Your task to perform on an android device: Open location settings Image 0: 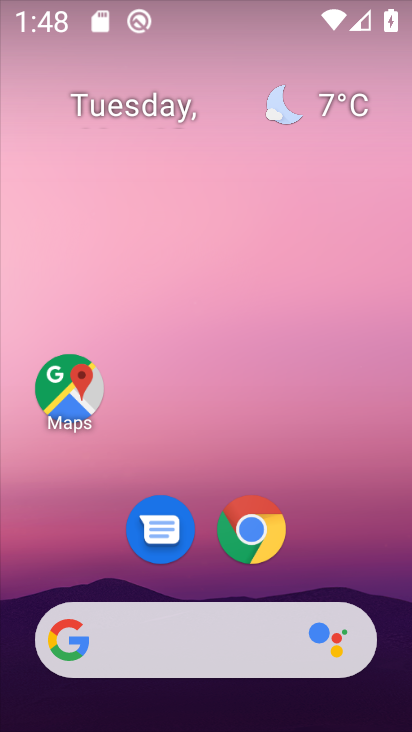
Step 0: drag from (321, 536) to (236, 22)
Your task to perform on an android device: Open location settings Image 1: 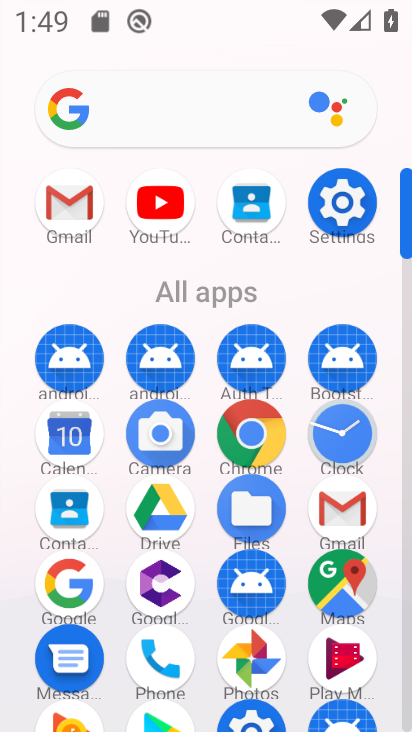
Step 1: click (342, 202)
Your task to perform on an android device: Open location settings Image 2: 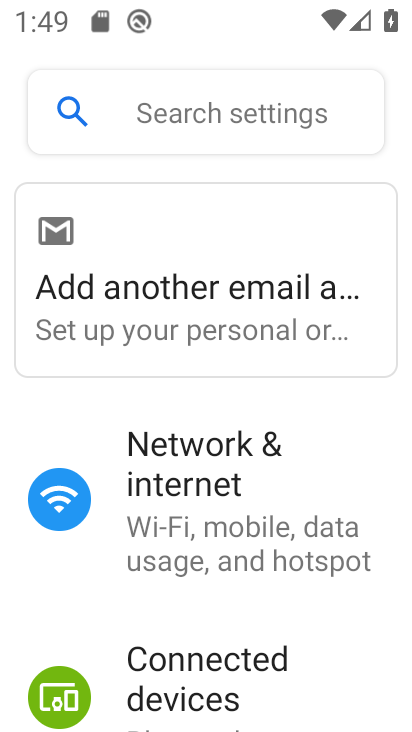
Step 2: drag from (207, 595) to (268, 396)
Your task to perform on an android device: Open location settings Image 3: 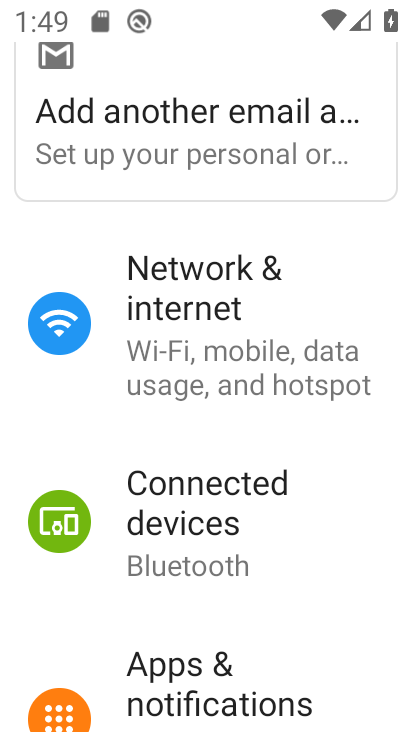
Step 3: drag from (200, 595) to (242, 446)
Your task to perform on an android device: Open location settings Image 4: 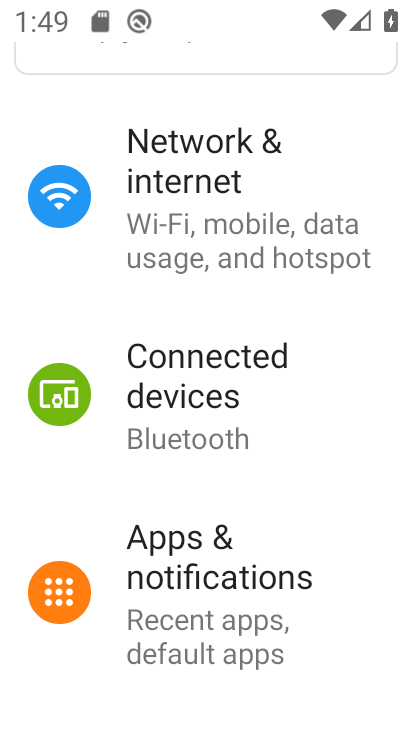
Step 4: drag from (252, 501) to (289, 363)
Your task to perform on an android device: Open location settings Image 5: 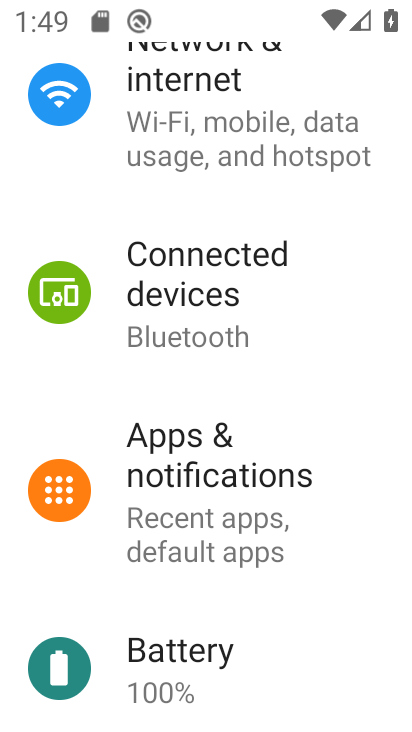
Step 5: drag from (230, 556) to (268, 438)
Your task to perform on an android device: Open location settings Image 6: 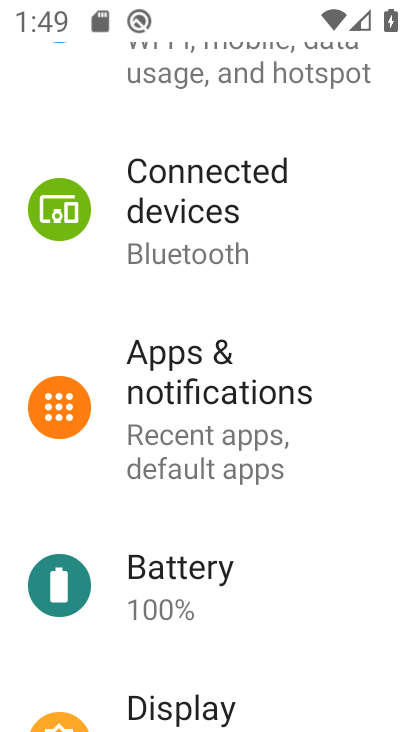
Step 6: drag from (247, 612) to (335, 383)
Your task to perform on an android device: Open location settings Image 7: 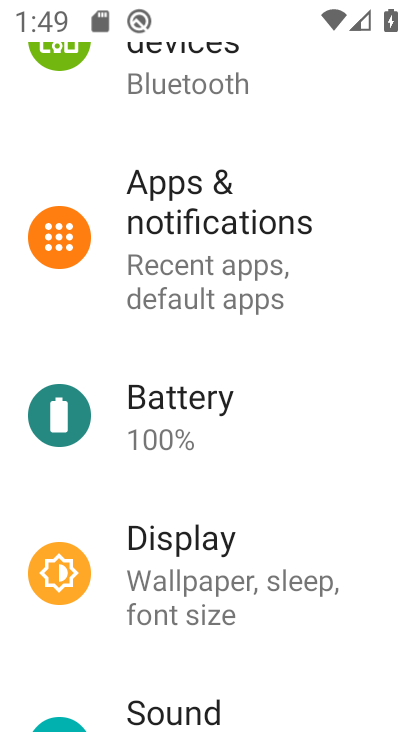
Step 7: drag from (266, 505) to (316, 323)
Your task to perform on an android device: Open location settings Image 8: 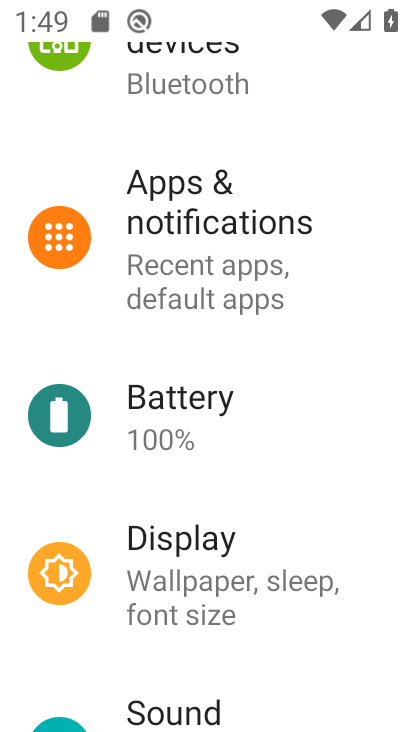
Step 8: drag from (220, 657) to (281, 436)
Your task to perform on an android device: Open location settings Image 9: 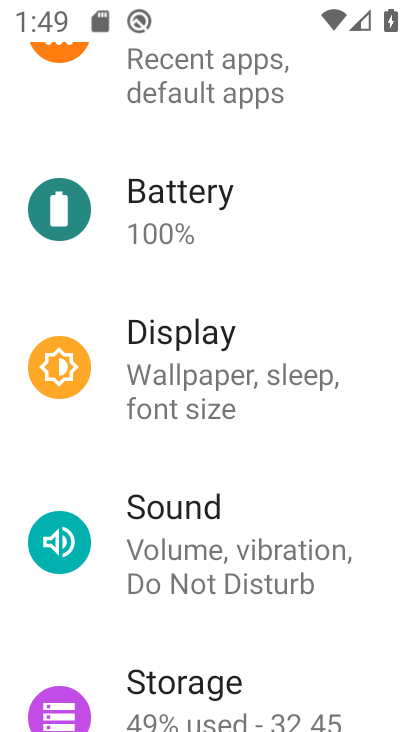
Step 9: drag from (262, 496) to (269, 289)
Your task to perform on an android device: Open location settings Image 10: 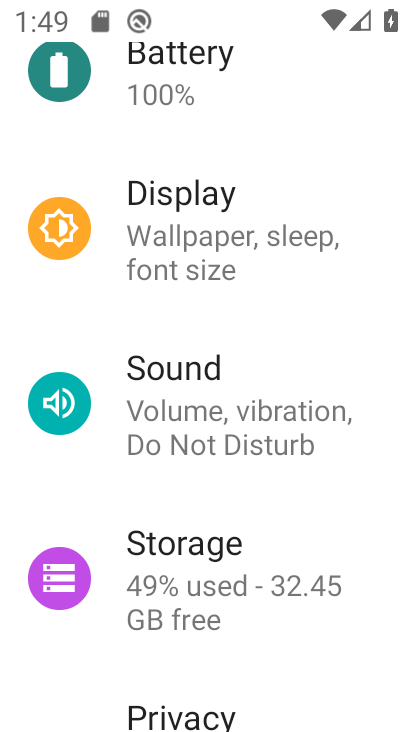
Step 10: drag from (245, 639) to (330, 376)
Your task to perform on an android device: Open location settings Image 11: 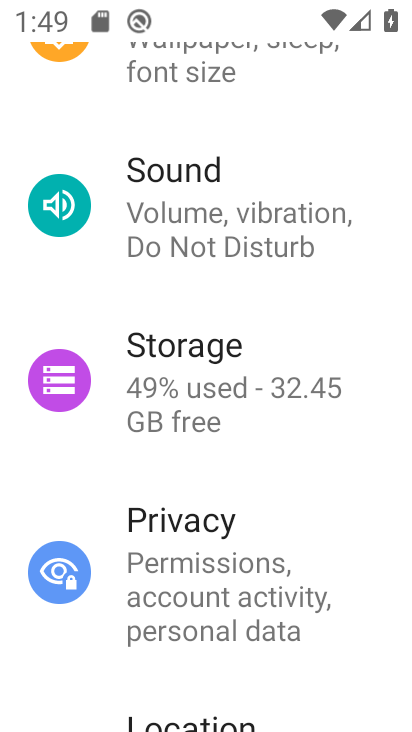
Step 11: drag from (275, 481) to (269, 269)
Your task to perform on an android device: Open location settings Image 12: 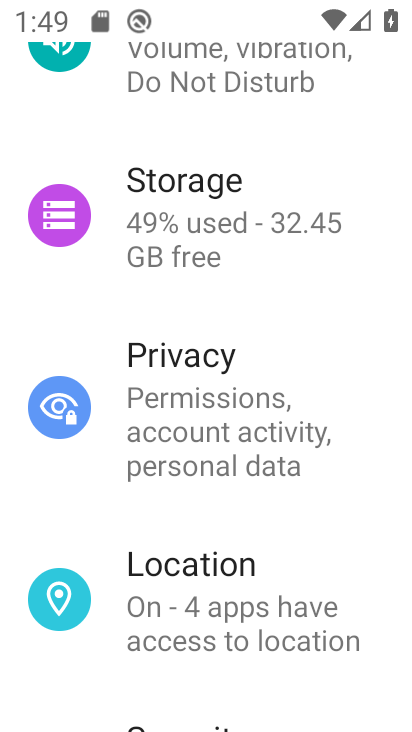
Step 12: click (206, 566)
Your task to perform on an android device: Open location settings Image 13: 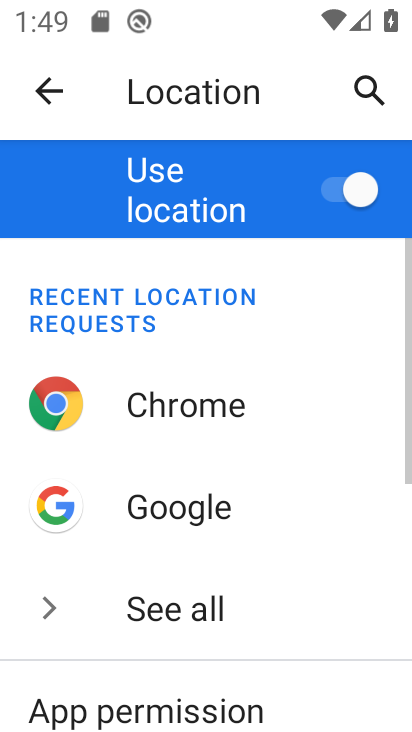
Step 13: task complete